Your task to perform on an android device: Open settings Image 0: 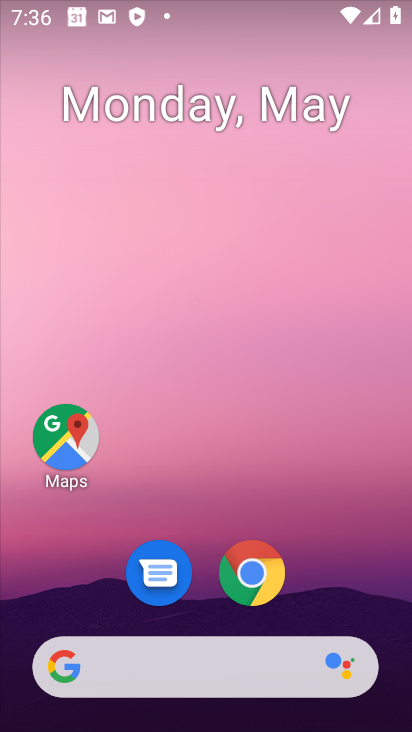
Step 0: drag from (256, 664) to (270, 94)
Your task to perform on an android device: Open settings Image 1: 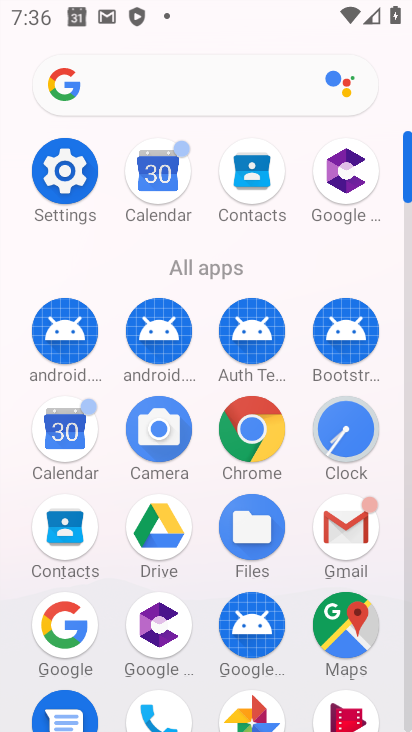
Step 1: click (70, 185)
Your task to perform on an android device: Open settings Image 2: 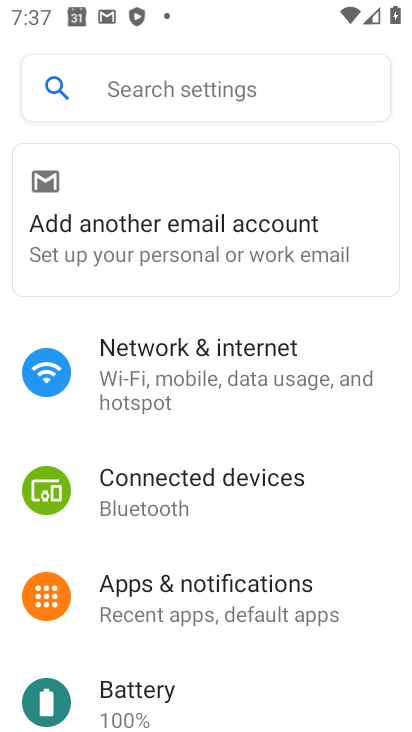
Step 2: task complete